Your task to perform on an android device: delete the emails in spam in the gmail app Image 0: 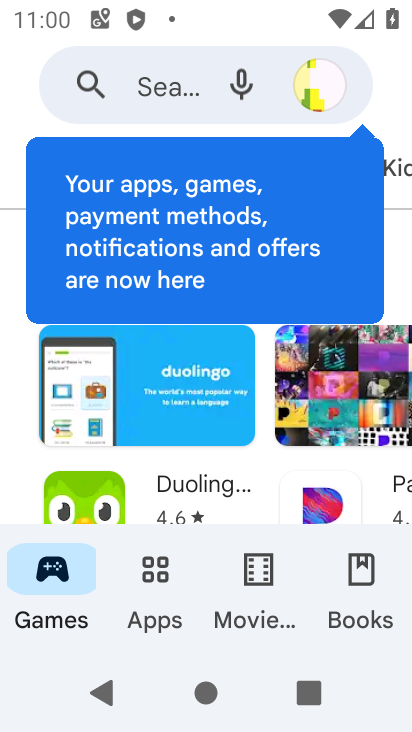
Step 0: press home button
Your task to perform on an android device: delete the emails in spam in the gmail app Image 1: 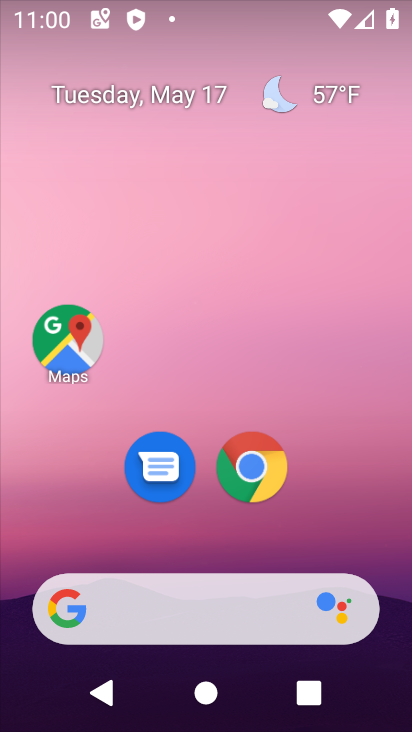
Step 1: drag from (237, 640) to (205, 247)
Your task to perform on an android device: delete the emails in spam in the gmail app Image 2: 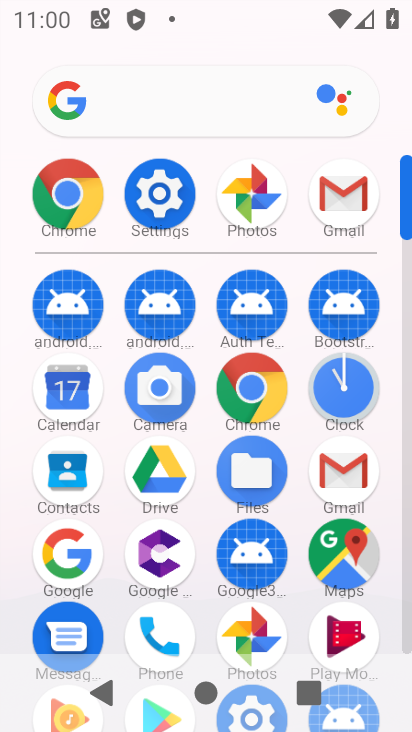
Step 2: click (141, 211)
Your task to perform on an android device: delete the emails in spam in the gmail app Image 3: 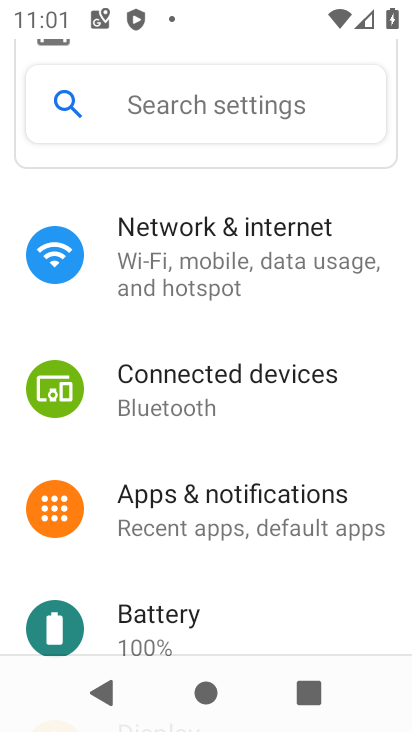
Step 3: press home button
Your task to perform on an android device: delete the emails in spam in the gmail app Image 4: 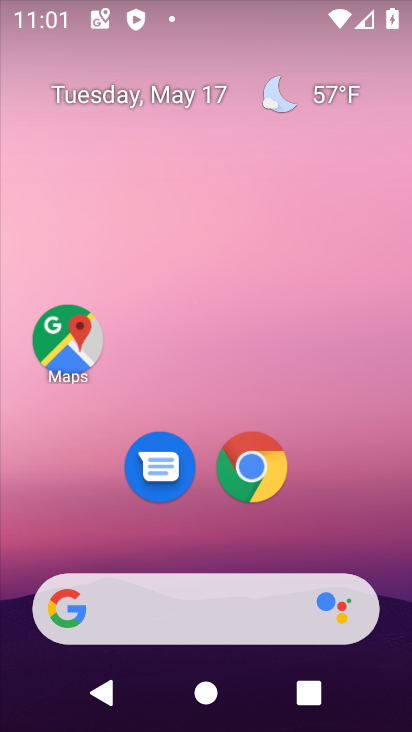
Step 4: drag from (297, 583) to (376, 1)
Your task to perform on an android device: delete the emails in spam in the gmail app Image 5: 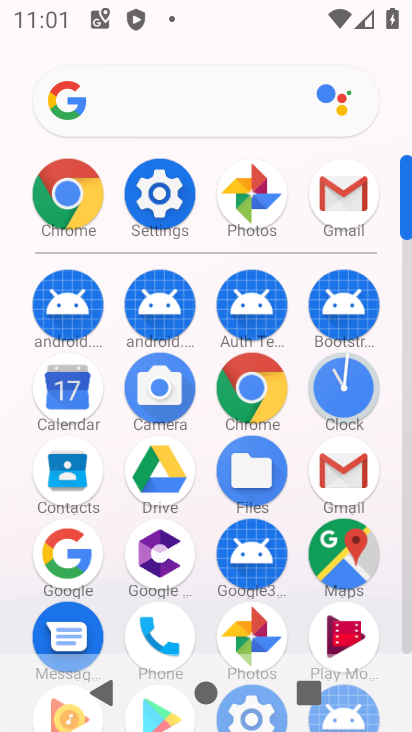
Step 5: click (343, 196)
Your task to perform on an android device: delete the emails in spam in the gmail app Image 6: 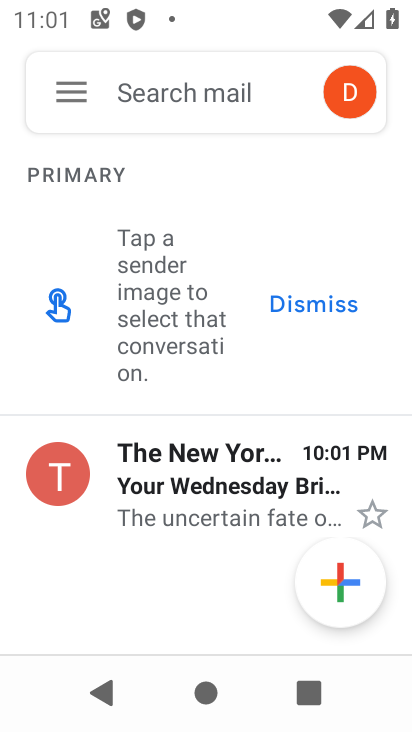
Step 6: click (66, 104)
Your task to perform on an android device: delete the emails in spam in the gmail app Image 7: 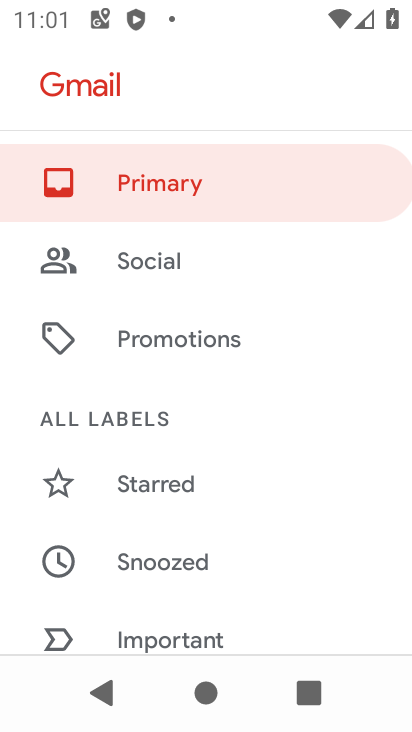
Step 7: drag from (177, 495) to (294, 242)
Your task to perform on an android device: delete the emails in spam in the gmail app Image 8: 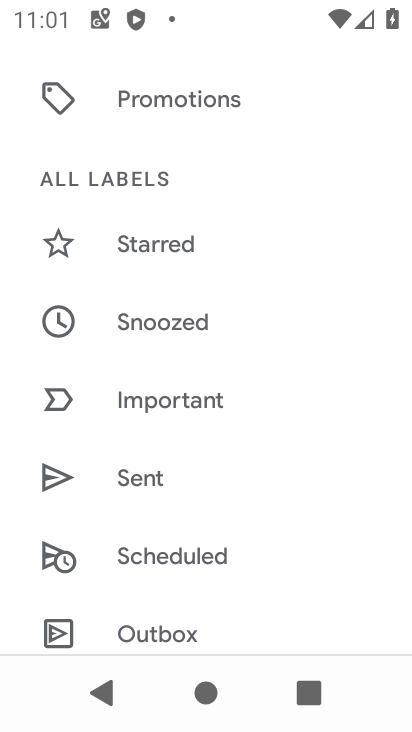
Step 8: drag from (218, 459) to (286, 288)
Your task to perform on an android device: delete the emails in spam in the gmail app Image 9: 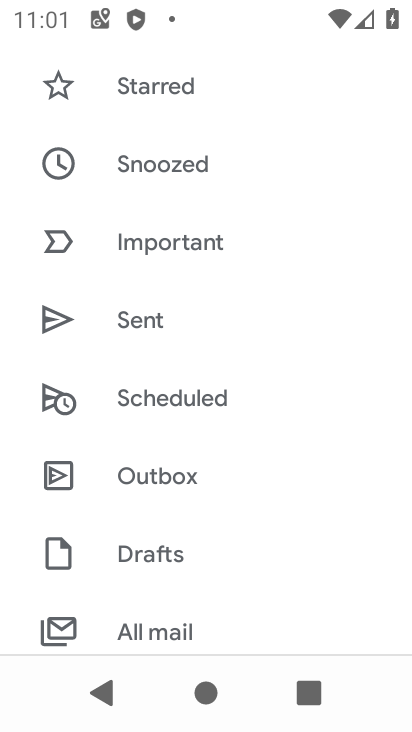
Step 9: drag from (186, 532) to (223, 288)
Your task to perform on an android device: delete the emails in spam in the gmail app Image 10: 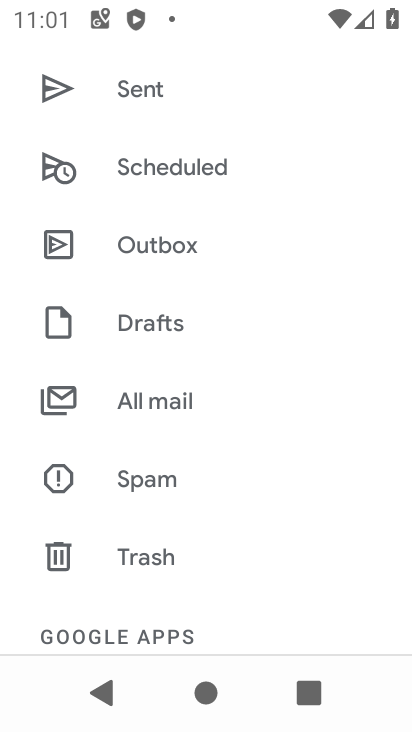
Step 10: click (177, 493)
Your task to perform on an android device: delete the emails in spam in the gmail app Image 11: 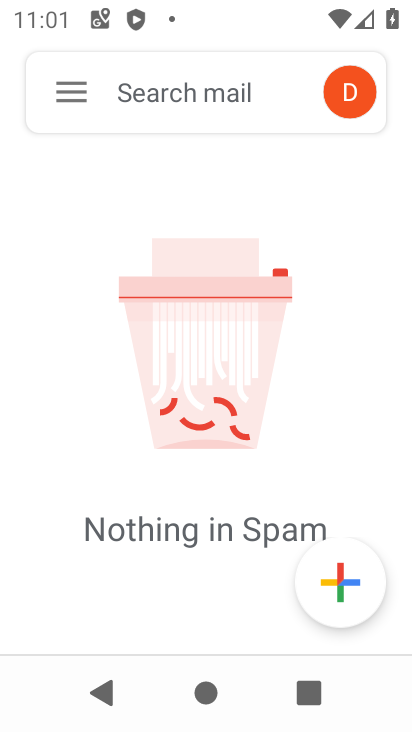
Step 11: task complete